Your task to perform on an android device: Open accessibility settings Image 0: 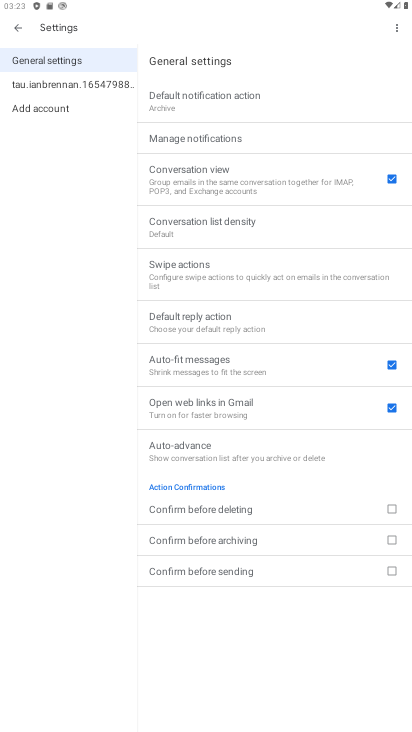
Step 0: press home button
Your task to perform on an android device: Open accessibility settings Image 1: 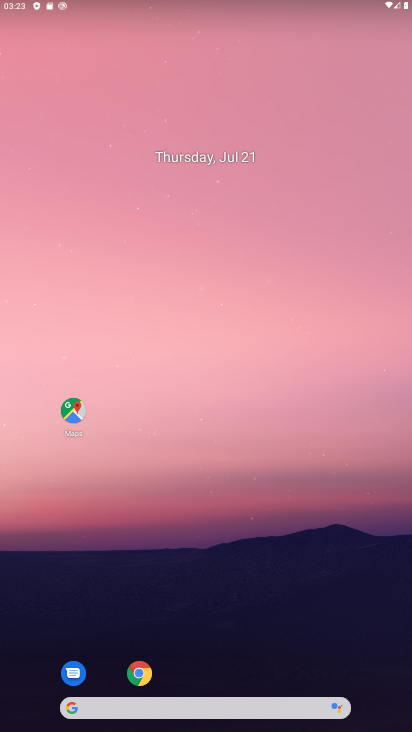
Step 1: drag from (237, 515) to (205, 127)
Your task to perform on an android device: Open accessibility settings Image 2: 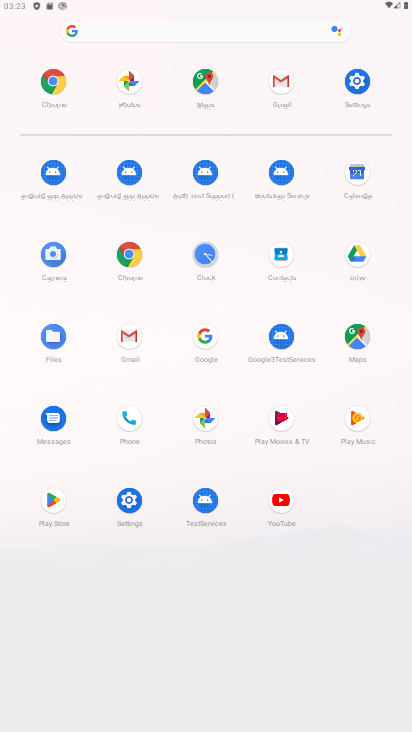
Step 2: click (354, 74)
Your task to perform on an android device: Open accessibility settings Image 3: 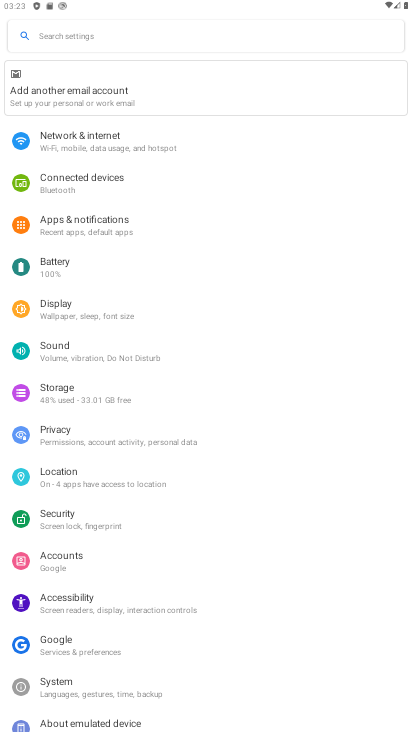
Step 3: click (79, 605)
Your task to perform on an android device: Open accessibility settings Image 4: 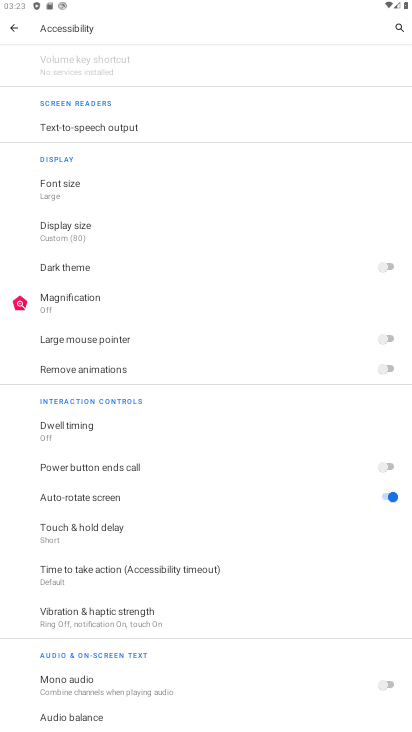
Step 4: task complete